Your task to perform on an android device: check google app version Image 0: 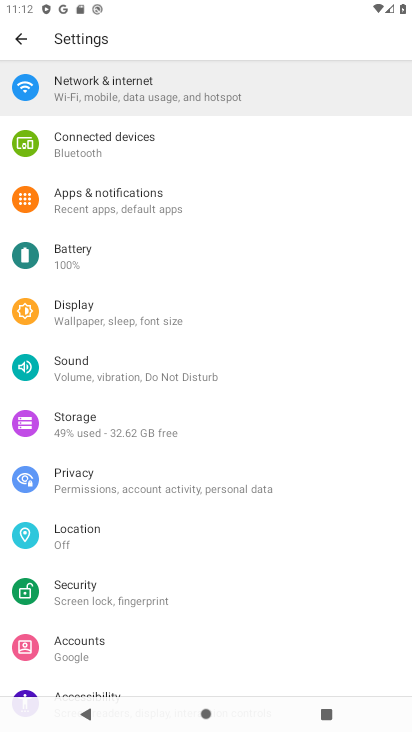
Step 0: press home button
Your task to perform on an android device: check google app version Image 1: 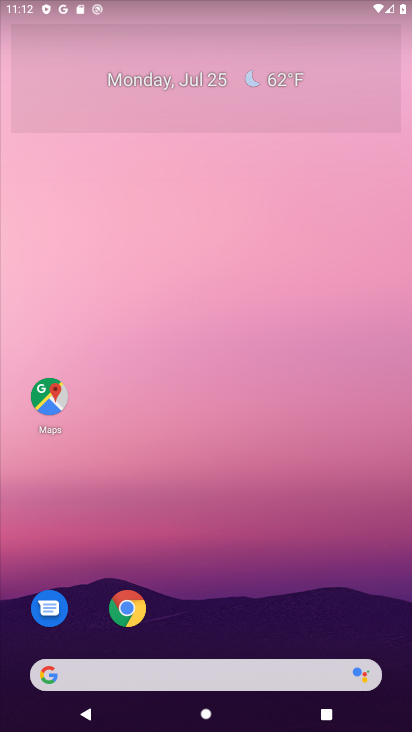
Step 1: click (231, 669)
Your task to perform on an android device: check google app version Image 2: 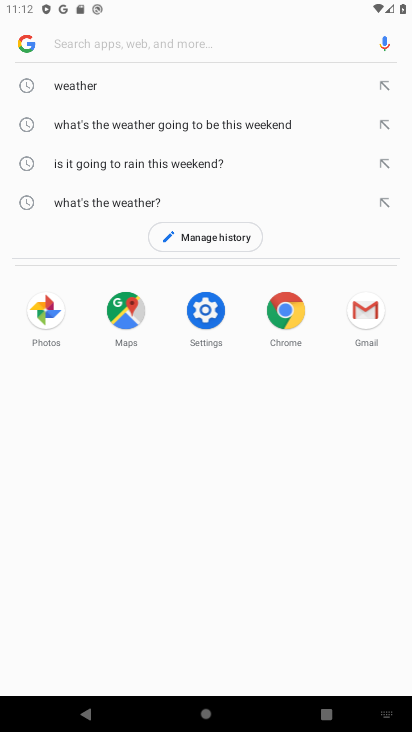
Step 2: click (32, 44)
Your task to perform on an android device: check google app version Image 3: 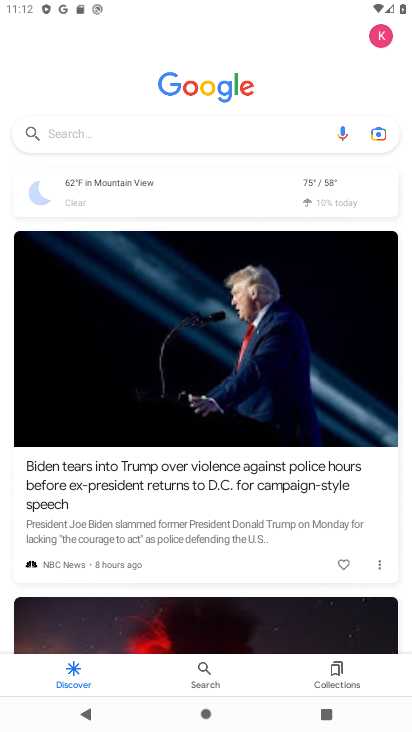
Step 3: click (386, 31)
Your task to perform on an android device: check google app version Image 4: 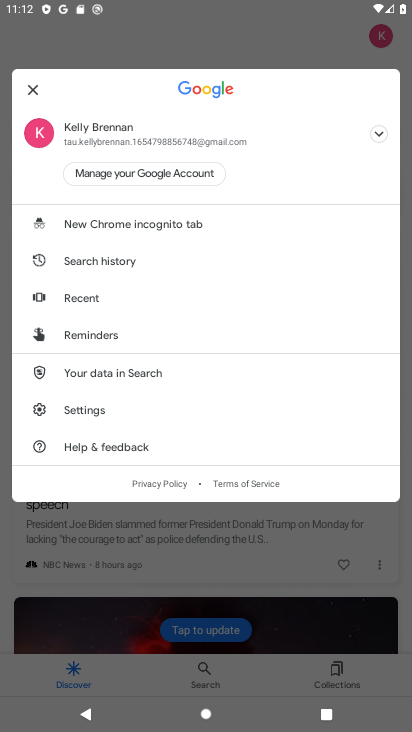
Step 4: click (93, 413)
Your task to perform on an android device: check google app version Image 5: 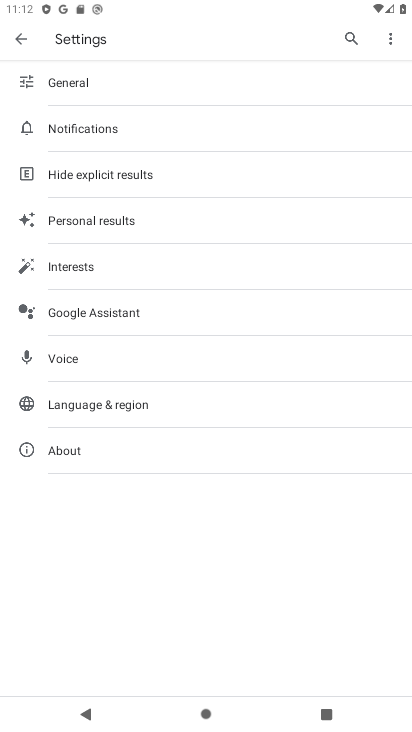
Step 5: click (85, 452)
Your task to perform on an android device: check google app version Image 6: 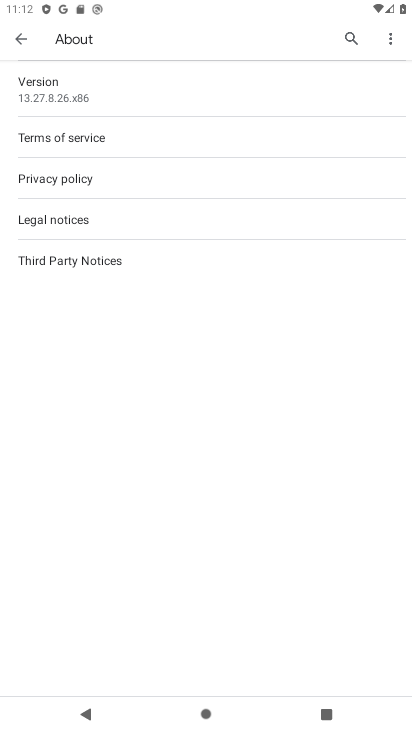
Step 6: task complete